Your task to perform on an android device: What is the recent news? Image 0: 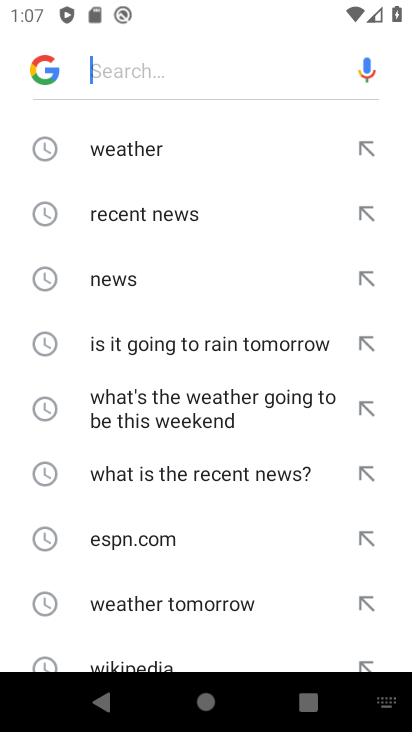
Step 0: press home button
Your task to perform on an android device: What is the recent news? Image 1: 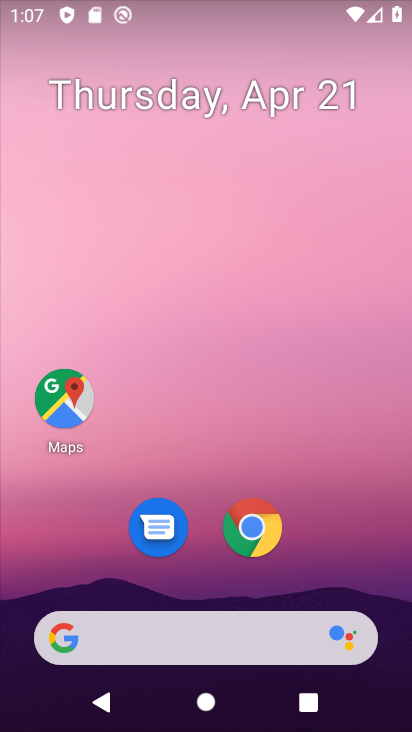
Step 1: task complete